Your task to perform on an android device: Open ESPN.com Image 0: 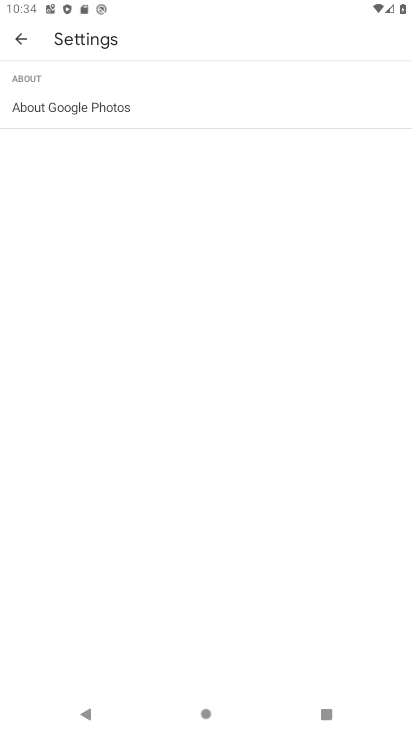
Step 0: press home button
Your task to perform on an android device: Open ESPN.com Image 1: 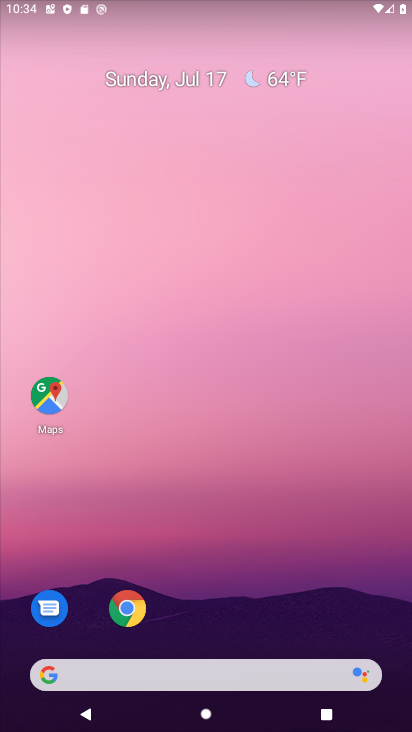
Step 1: click (80, 681)
Your task to perform on an android device: Open ESPN.com Image 2: 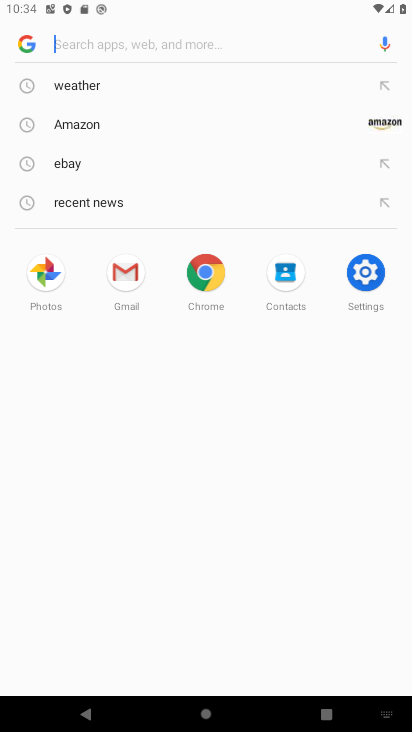
Step 2: type "ESPN.com"
Your task to perform on an android device: Open ESPN.com Image 3: 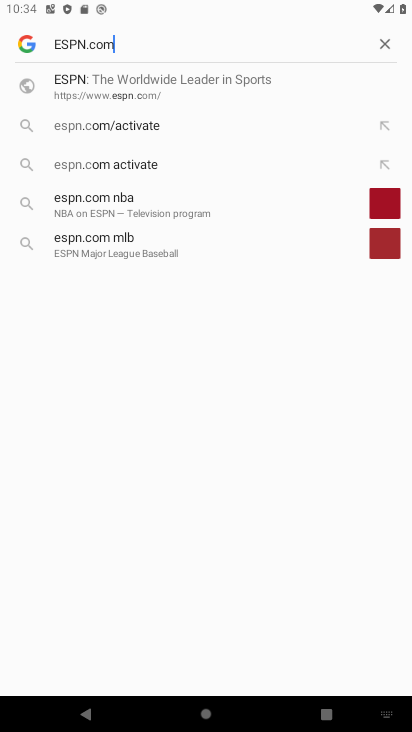
Step 3: type ""
Your task to perform on an android device: Open ESPN.com Image 4: 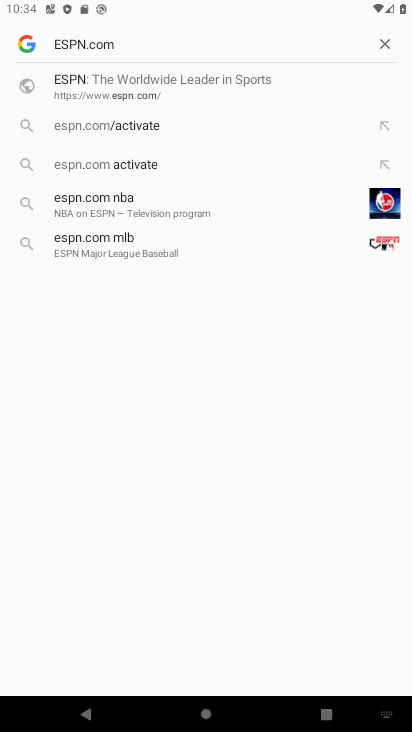
Step 4: click (71, 83)
Your task to perform on an android device: Open ESPN.com Image 5: 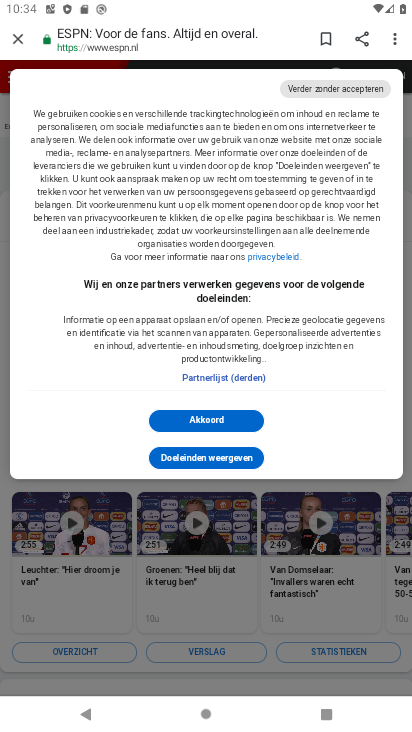
Step 5: task complete